Your task to perform on an android device: set the timer Image 0: 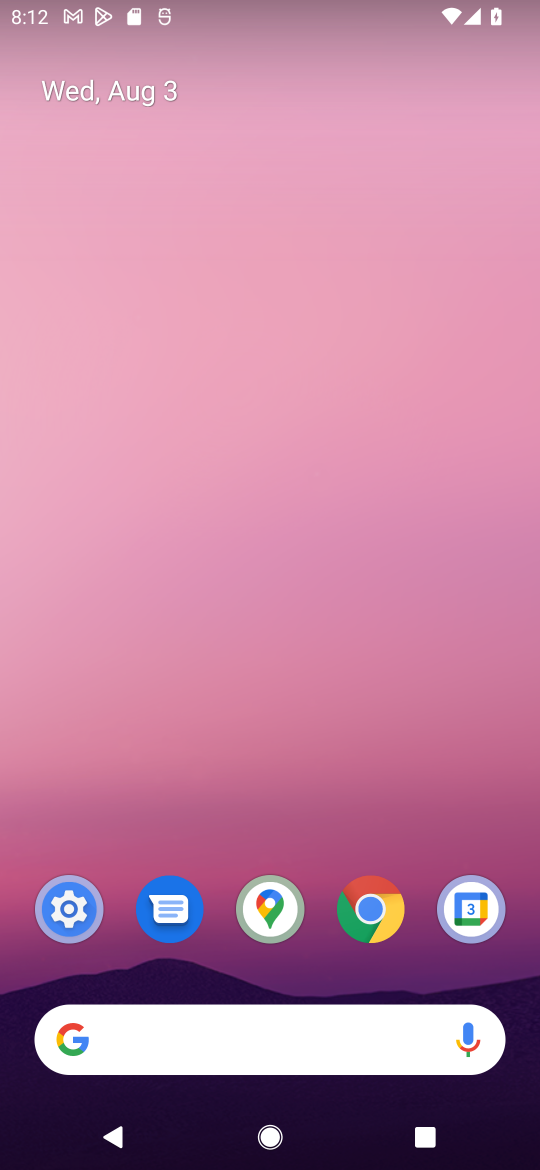
Step 0: drag from (327, 825) to (360, 153)
Your task to perform on an android device: set the timer Image 1: 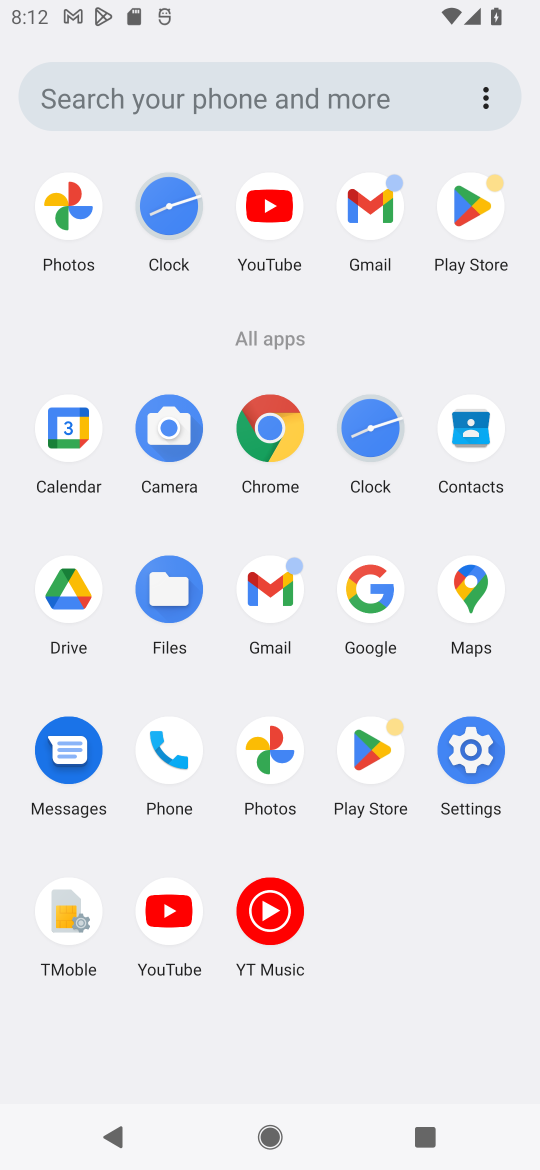
Step 1: click (165, 227)
Your task to perform on an android device: set the timer Image 2: 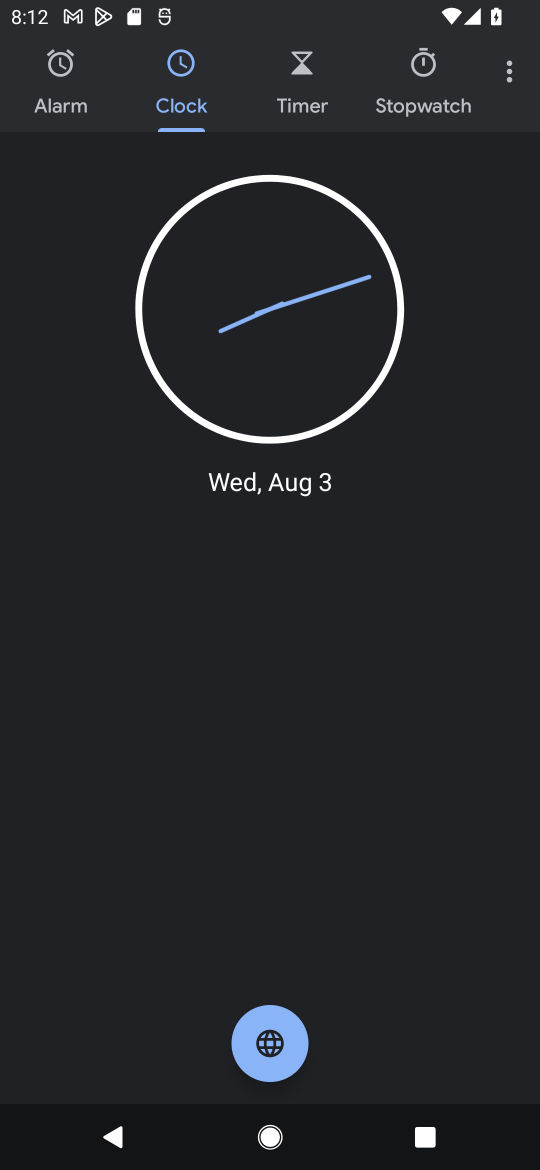
Step 2: click (299, 86)
Your task to perform on an android device: set the timer Image 3: 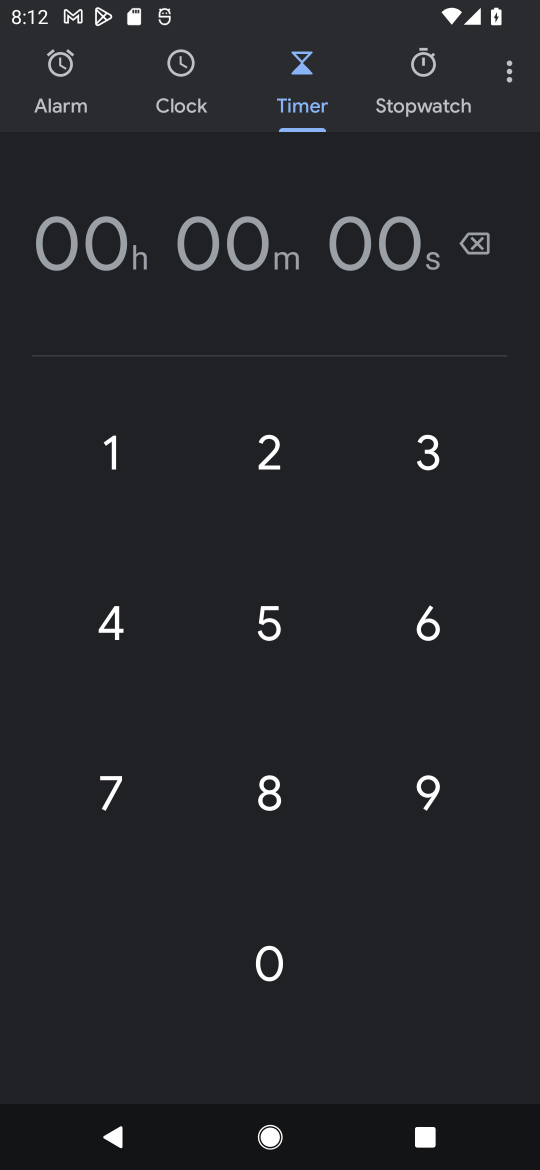
Step 3: click (265, 609)
Your task to perform on an android device: set the timer Image 4: 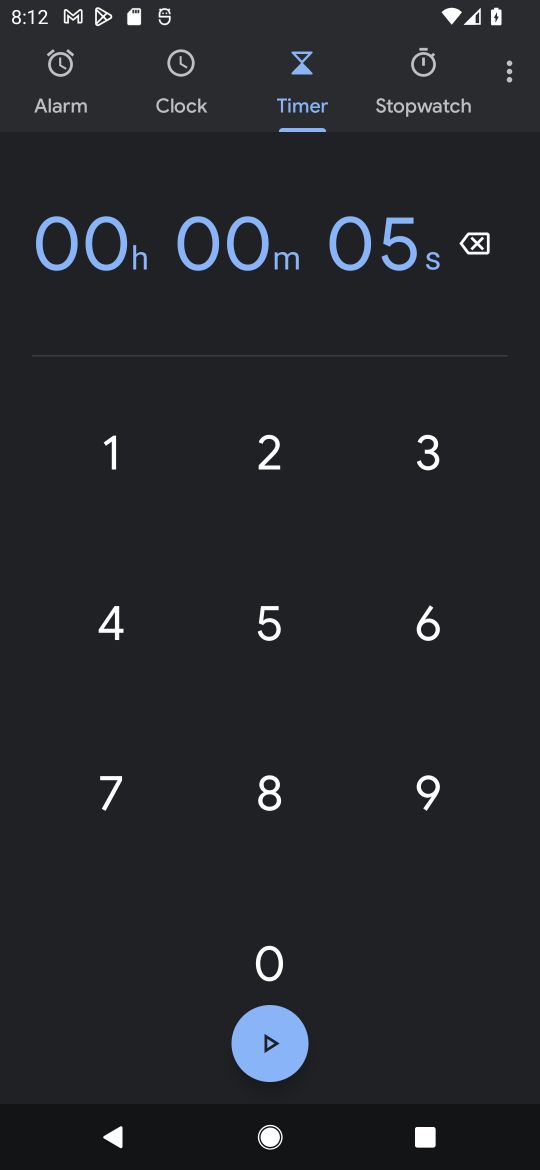
Step 4: task complete